Your task to perform on an android device: Go to network settings Image 0: 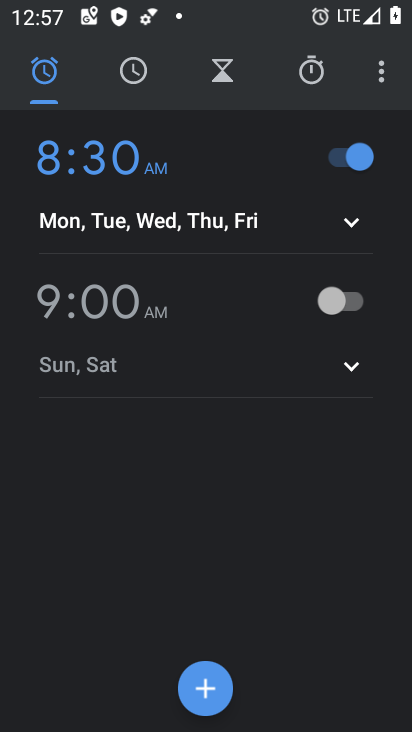
Step 0: press home button
Your task to perform on an android device: Go to network settings Image 1: 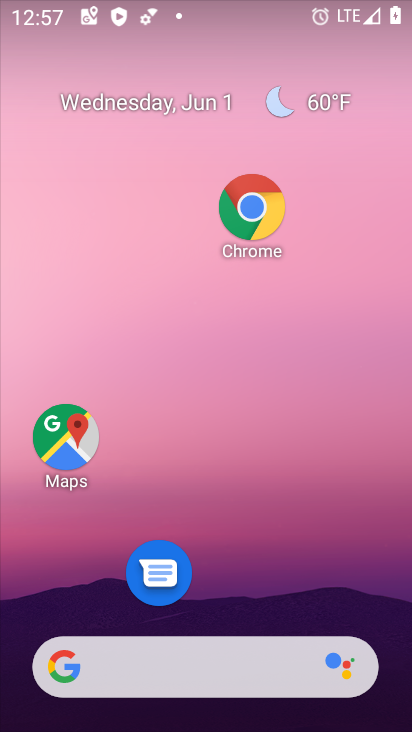
Step 1: drag from (210, 601) to (257, 196)
Your task to perform on an android device: Go to network settings Image 2: 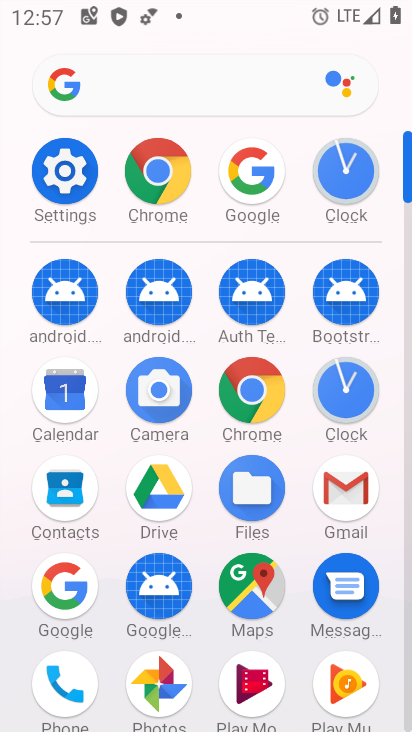
Step 2: click (40, 170)
Your task to perform on an android device: Go to network settings Image 3: 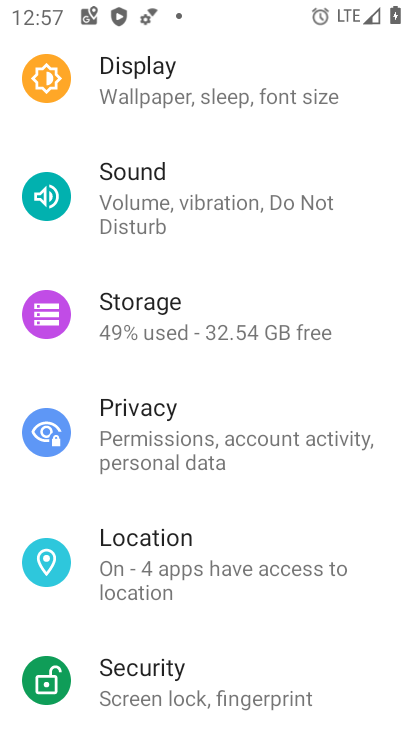
Step 3: drag from (209, 119) to (180, 510)
Your task to perform on an android device: Go to network settings Image 4: 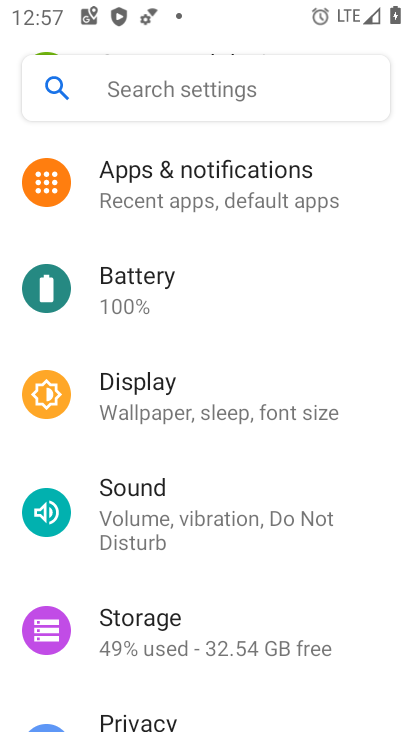
Step 4: drag from (178, 258) to (165, 587)
Your task to perform on an android device: Go to network settings Image 5: 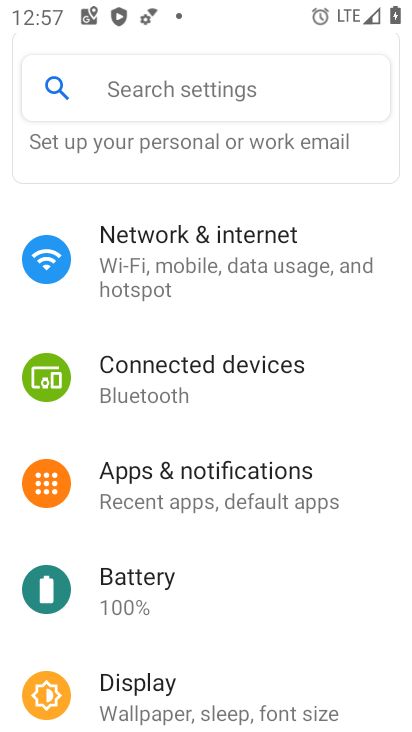
Step 5: drag from (194, 249) to (160, 490)
Your task to perform on an android device: Go to network settings Image 6: 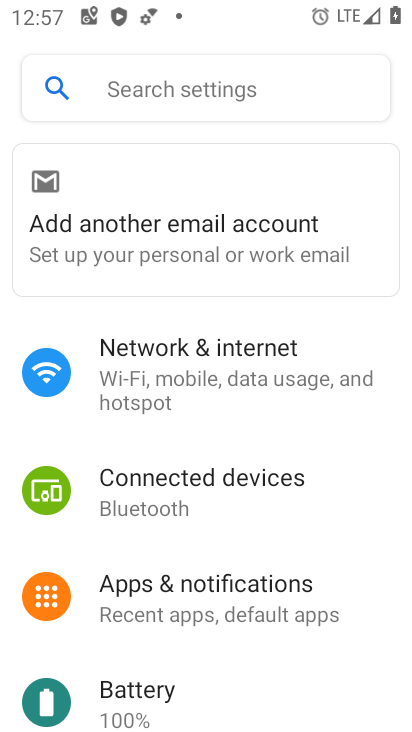
Step 6: drag from (194, 250) to (194, 510)
Your task to perform on an android device: Go to network settings Image 7: 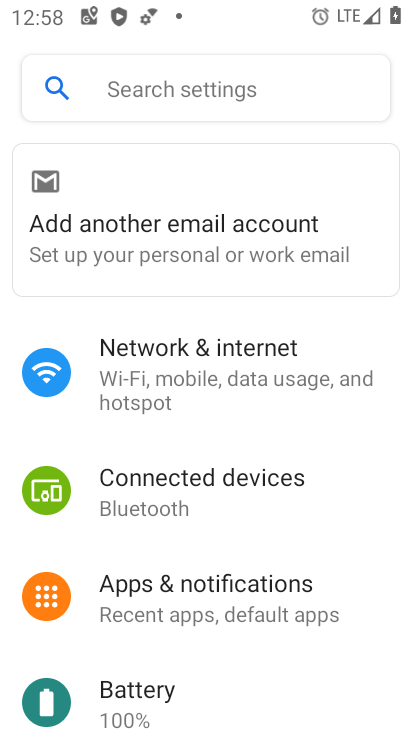
Step 7: drag from (185, 497) to (185, 622)
Your task to perform on an android device: Go to network settings Image 8: 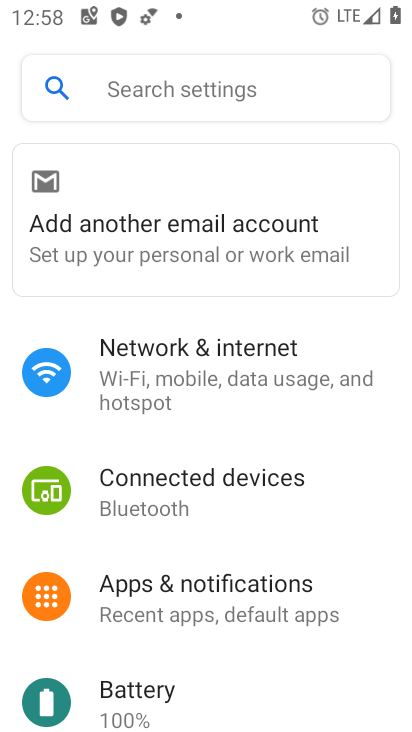
Step 8: click (186, 370)
Your task to perform on an android device: Go to network settings Image 9: 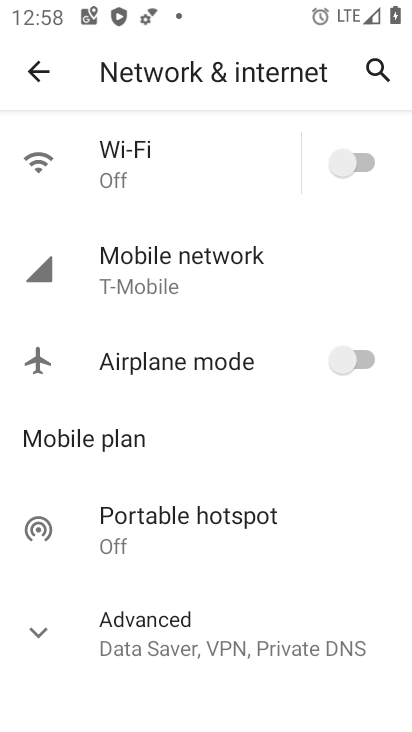
Step 9: click (158, 267)
Your task to perform on an android device: Go to network settings Image 10: 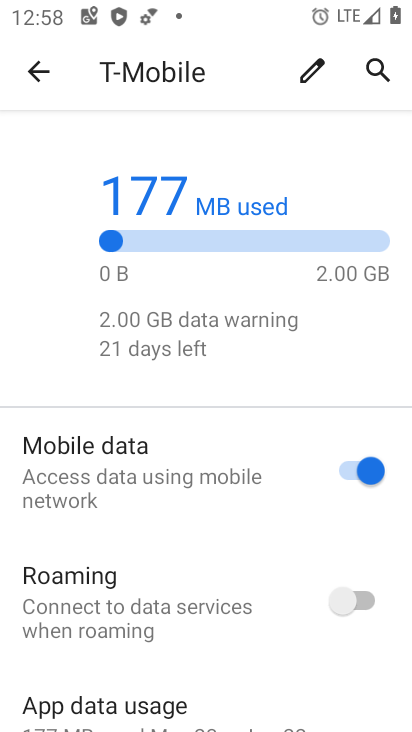
Step 10: task complete